Your task to perform on an android device: open device folders in google photos Image 0: 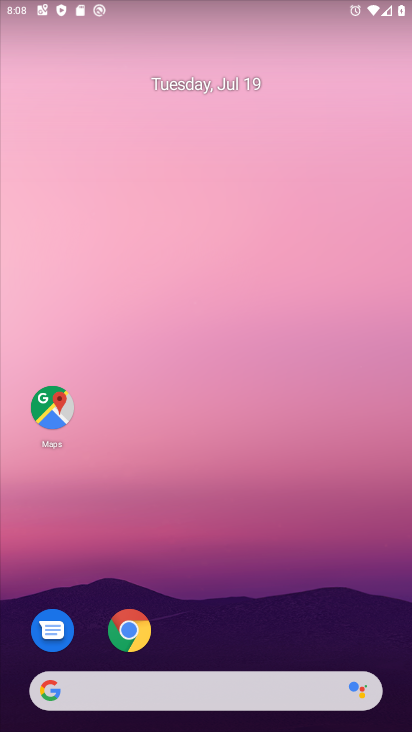
Step 0: drag from (189, 650) to (236, 36)
Your task to perform on an android device: open device folders in google photos Image 1: 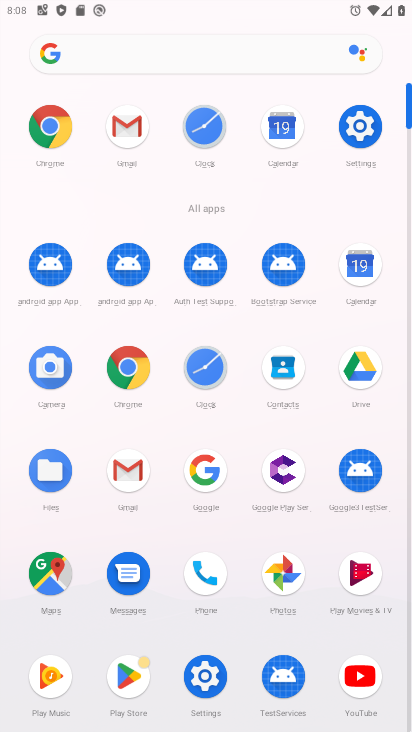
Step 1: click (286, 567)
Your task to perform on an android device: open device folders in google photos Image 2: 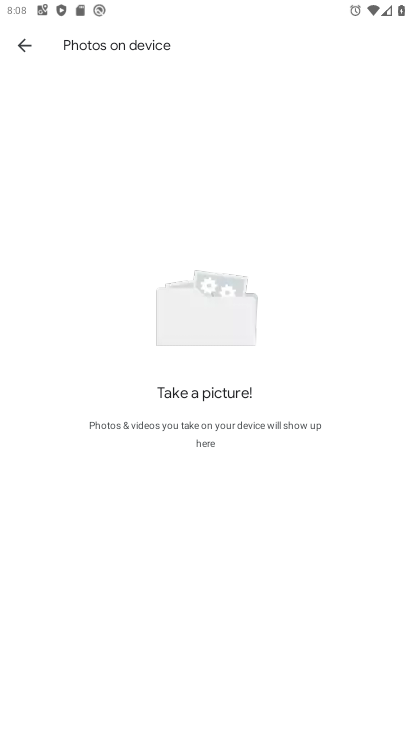
Step 2: click (29, 46)
Your task to perform on an android device: open device folders in google photos Image 3: 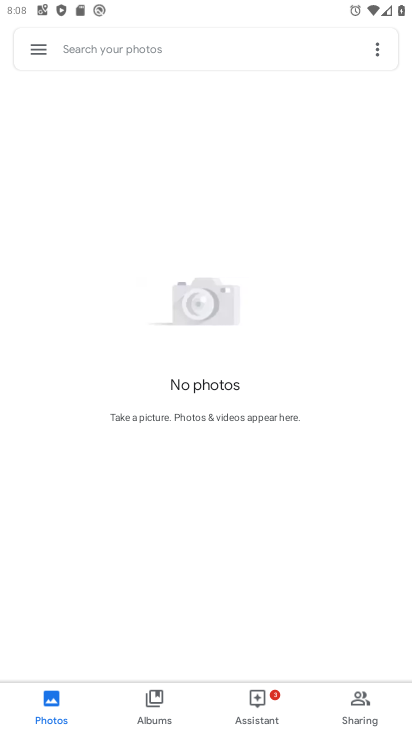
Step 3: click (41, 47)
Your task to perform on an android device: open device folders in google photos Image 4: 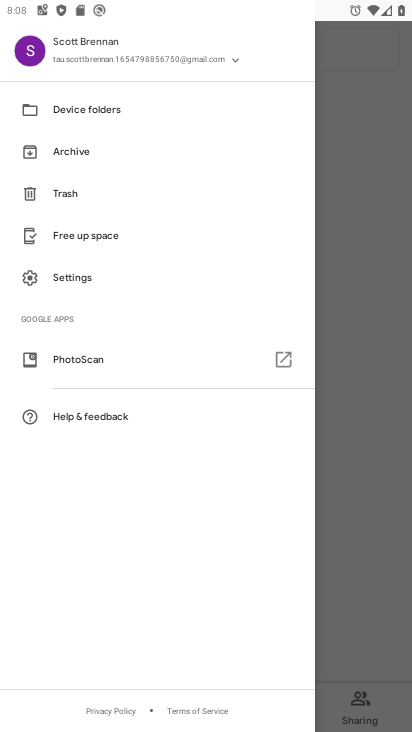
Step 4: click (107, 102)
Your task to perform on an android device: open device folders in google photos Image 5: 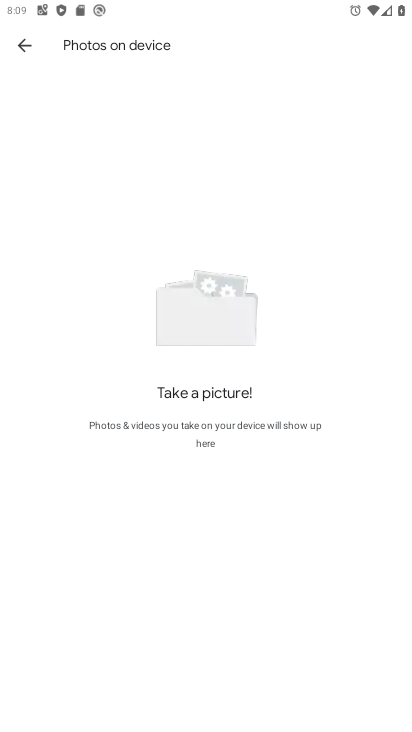
Step 5: task complete